Your task to perform on an android device: read, delete, or share a saved page in the chrome app Image 0: 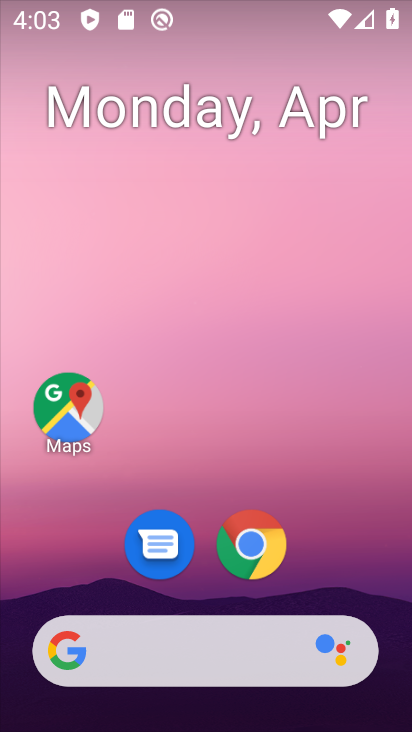
Step 0: drag from (193, 561) to (306, 102)
Your task to perform on an android device: read, delete, or share a saved page in the chrome app Image 1: 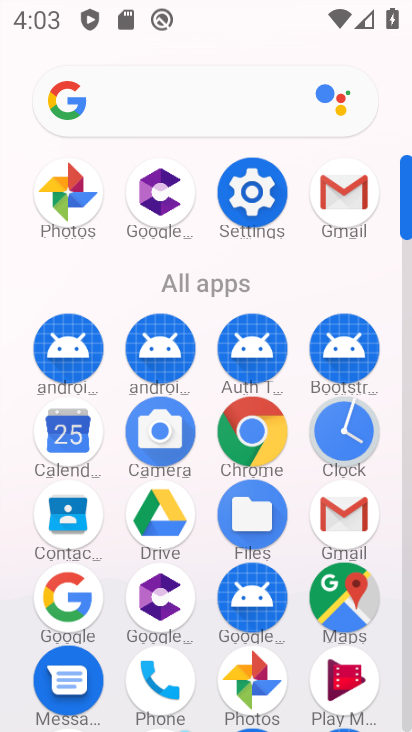
Step 1: click (264, 432)
Your task to perform on an android device: read, delete, or share a saved page in the chrome app Image 2: 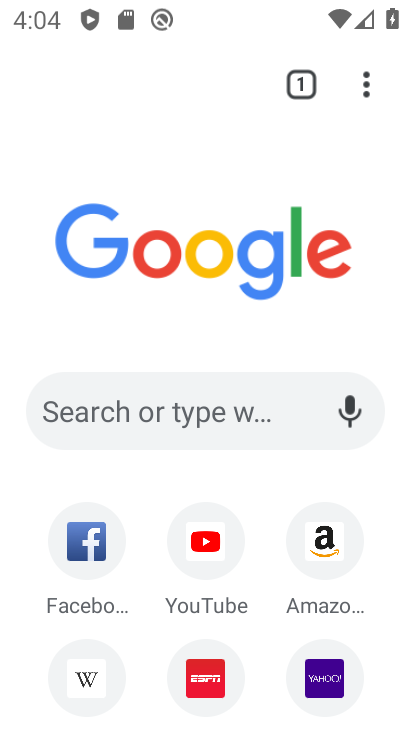
Step 2: click (364, 93)
Your task to perform on an android device: read, delete, or share a saved page in the chrome app Image 3: 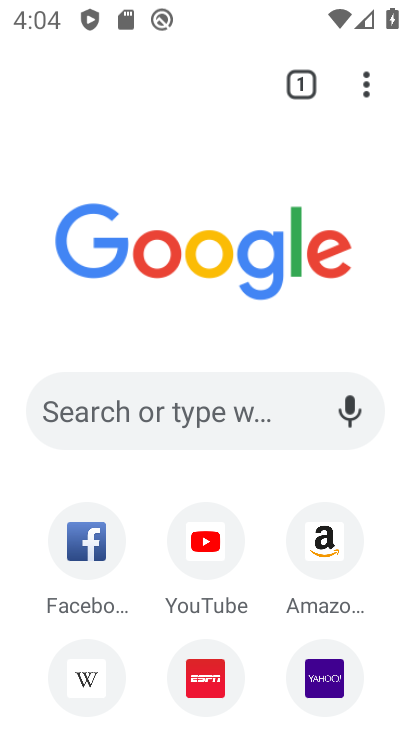
Step 3: drag from (364, 93) to (281, 545)
Your task to perform on an android device: read, delete, or share a saved page in the chrome app Image 4: 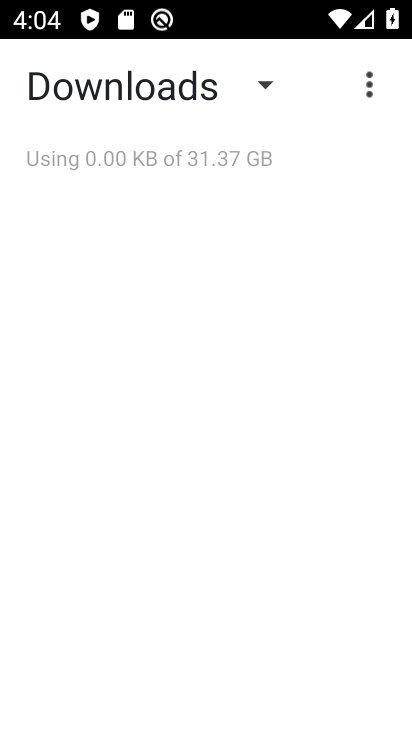
Step 4: click (140, 102)
Your task to perform on an android device: read, delete, or share a saved page in the chrome app Image 5: 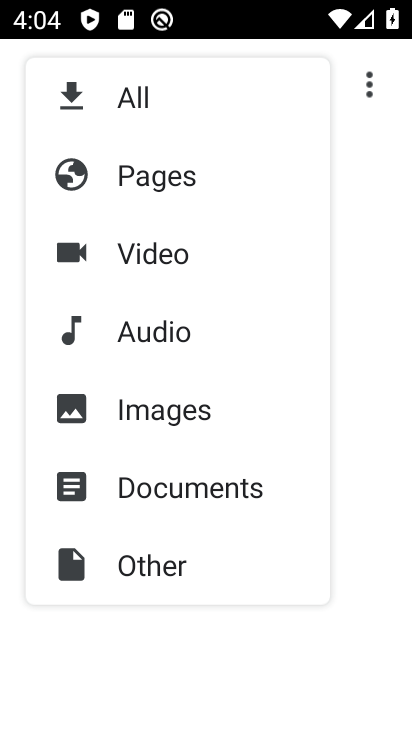
Step 5: click (168, 192)
Your task to perform on an android device: read, delete, or share a saved page in the chrome app Image 6: 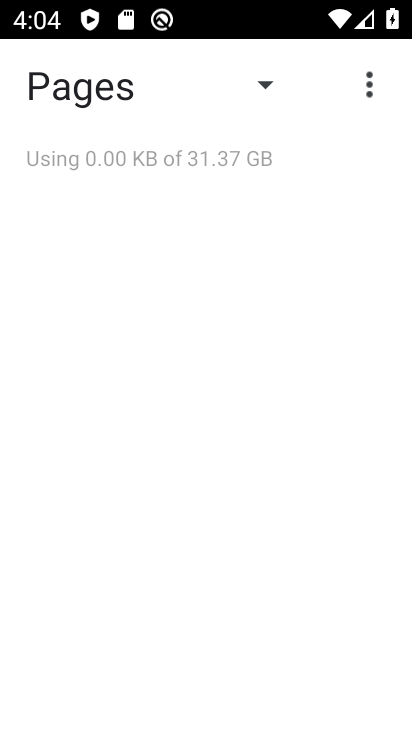
Step 6: task complete